Your task to perform on an android device: turn off priority inbox in the gmail app Image 0: 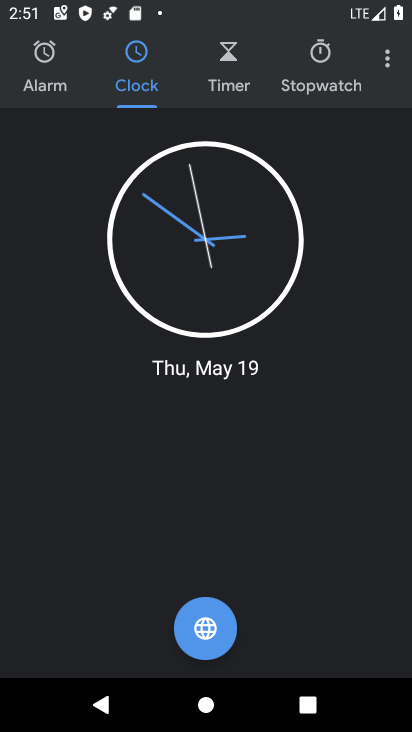
Step 0: press home button
Your task to perform on an android device: turn off priority inbox in the gmail app Image 1: 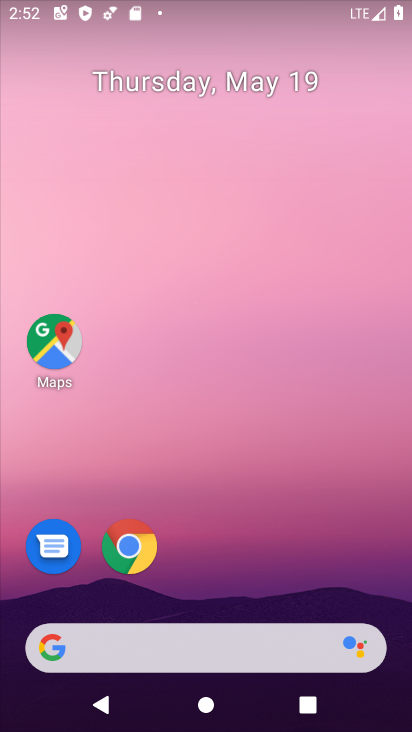
Step 1: drag from (119, 656) to (279, 91)
Your task to perform on an android device: turn off priority inbox in the gmail app Image 2: 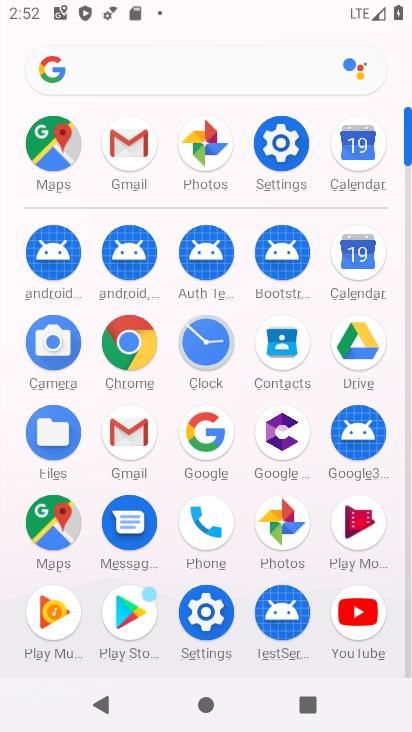
Step 2: click (137, 149)
Your task to perform on an android device: turn off priority inbox in the gmail app Image 3: 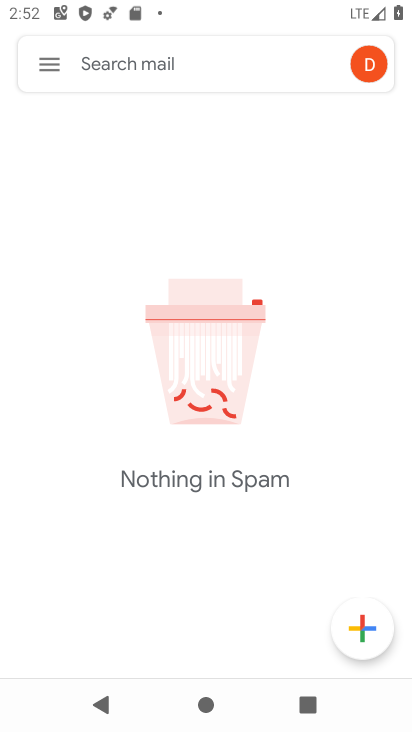
Step 3: click (51, 66)
Your task to perform on an android device: turn off priority inbox in the gmail app Image 4: 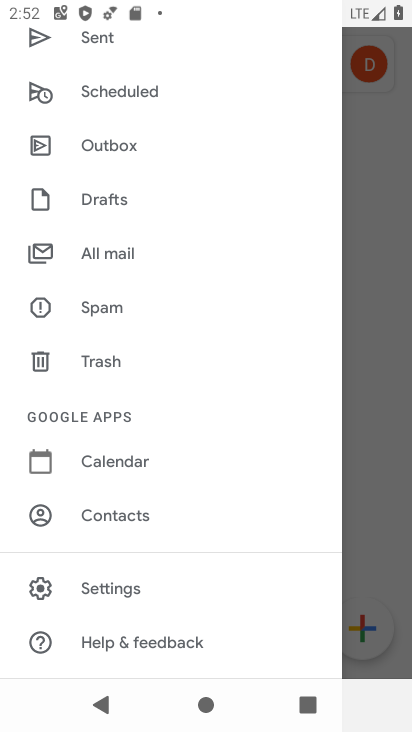
Step 4: click (123, 590)
Your task to perform on an android device: turn off priority inbox in the gmail app Image 5: 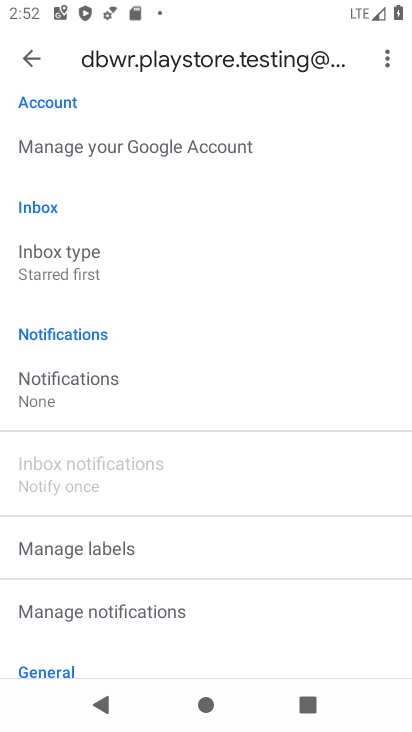
Step 5: drag from (171, 254) to (100, 504)
Your task to perform on an android device: turn off priority inbox in the gmail app Image 6: 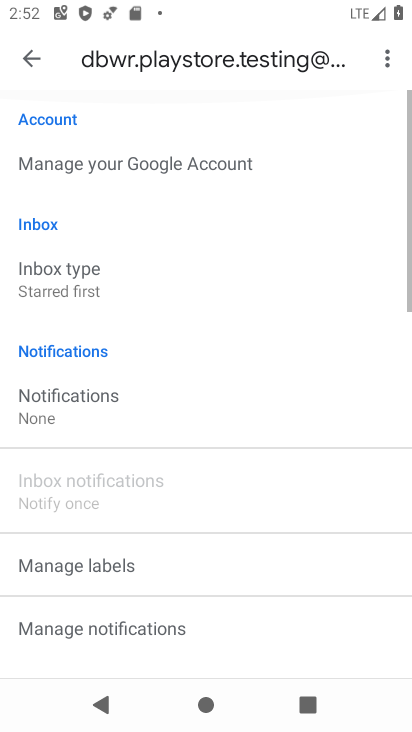
Step 6: click (65, 286)
Your task to perform on an android device: turn off priority inbox in the gmail app Image 7: 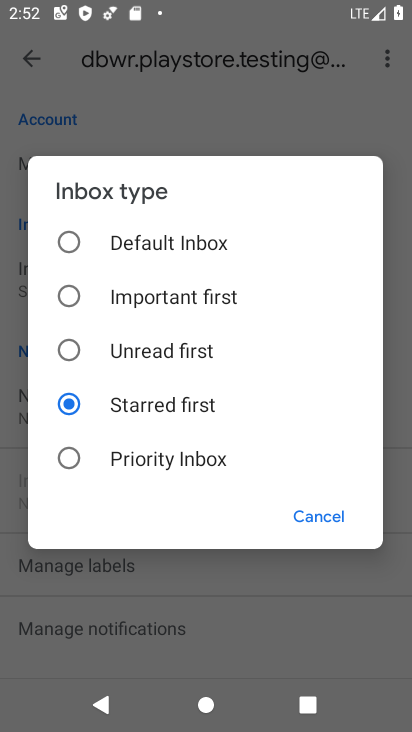
Step 7: task complete